Your task to perform on an android device: turn off airplane mode Image 0: 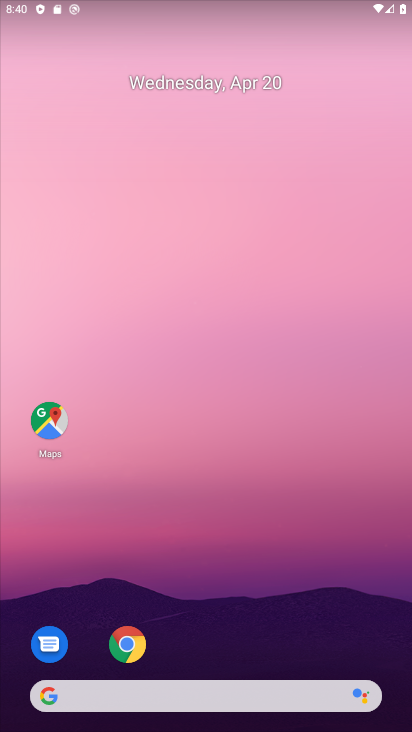
Step 0: drag from (272, 1) to (269, 520)
Your task to perform on an android device: turn off airplane mode Image 1: 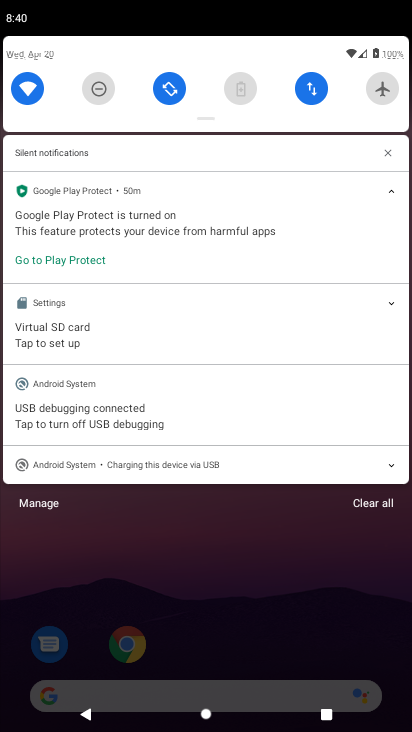
Step 1: task complete